Your task to perform on an android device: Open privacy settings Image 0: 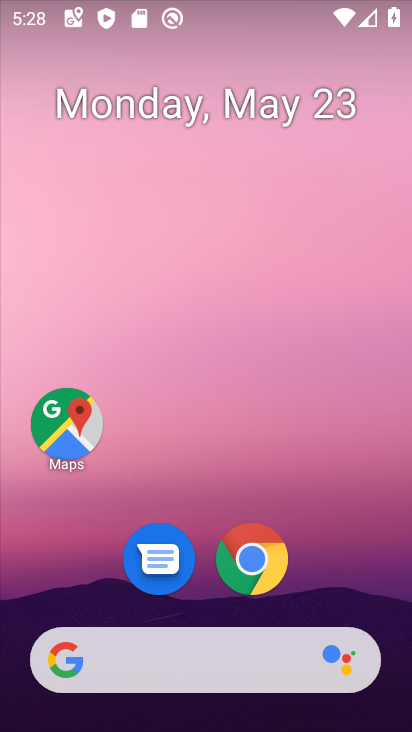
Step 0: drag from (137, 679) to (159, 10)
Your task to perform on an android device: Open privacy settings Image 1: 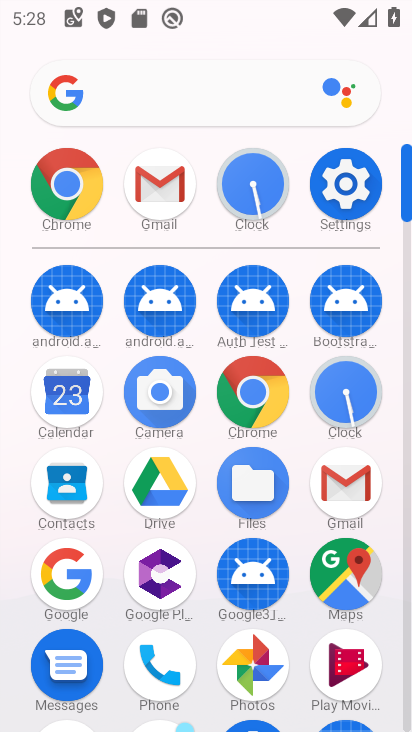
Step 1: click (337, 190)
Your task to perform on an android device: Open privacy settings Image 2: 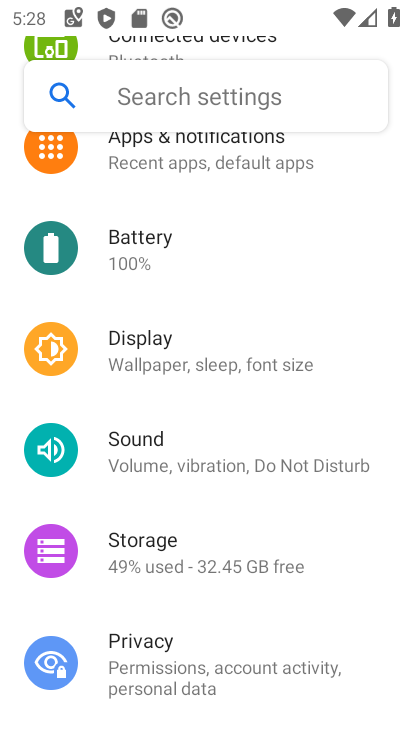
Step 2: drag from (213, 191) to (236, 90)
Your task to perform on an android device: Open privacy settings Image 3: 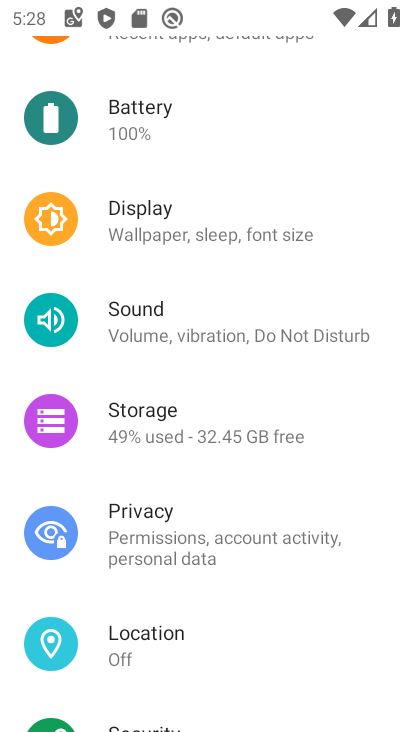
Step 3: click (182, 537)
Your task to perform on an android device: Open privacy settings Image 4: 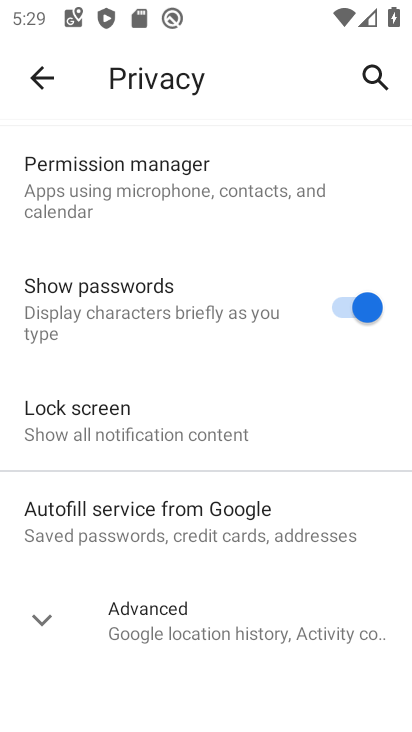
Step 4: task complete